Your task to perform on an android device: move a message to another label in the gmail app Image 0: 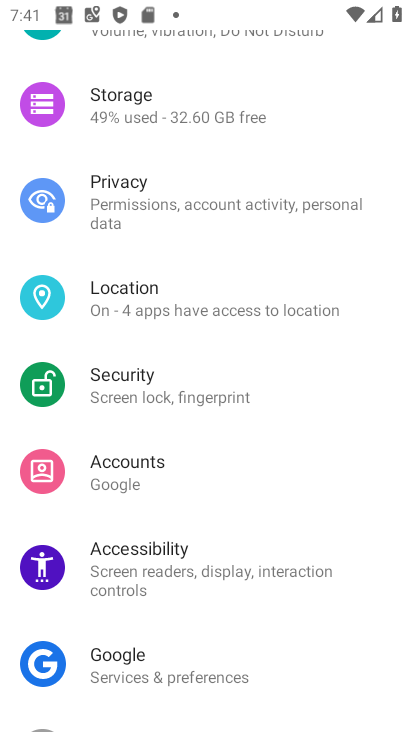
Step 0: press home button
Your task to perform on an android device: move a message to another label in the gmail app Image 1: 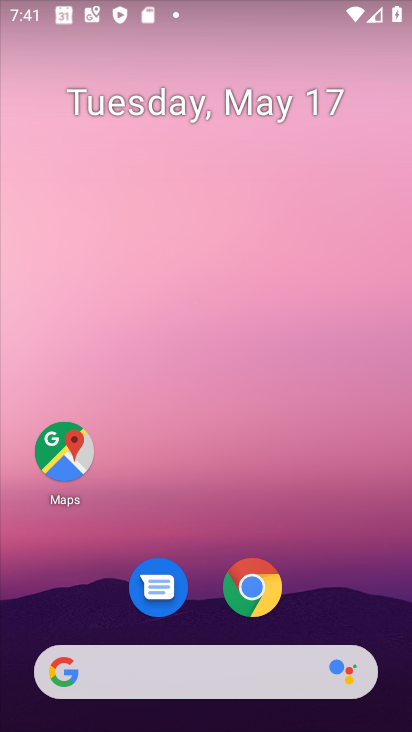
Step 1: drag from (203, 644) to (188, 337)
Your task to perform on an android device: move a message to another label in the gmail app Image 2: 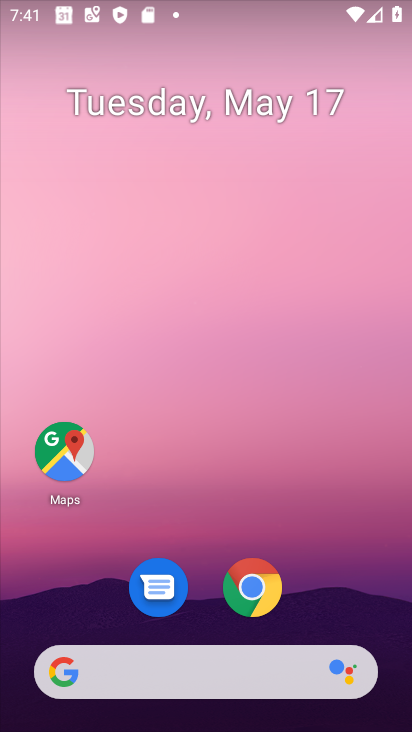
Step 2: drag from (231, 546) to (222, 230)
Your task to perform on an android device: move a message to another label in the gmail app Image 3: 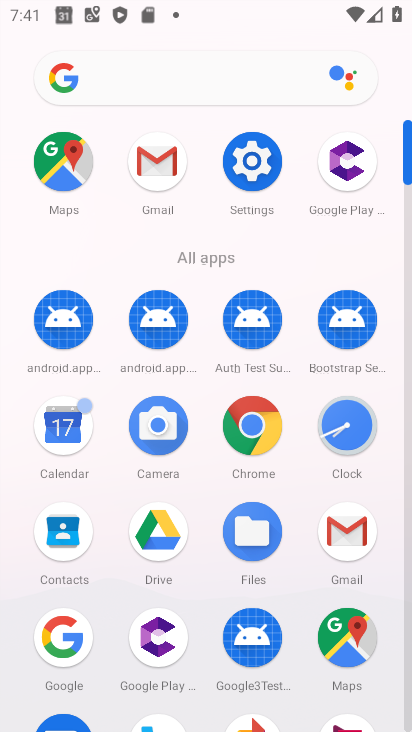
Step 3: click (154, 170)
Your task to perform on an android device: move a message to another label in the gmail app Image 4: 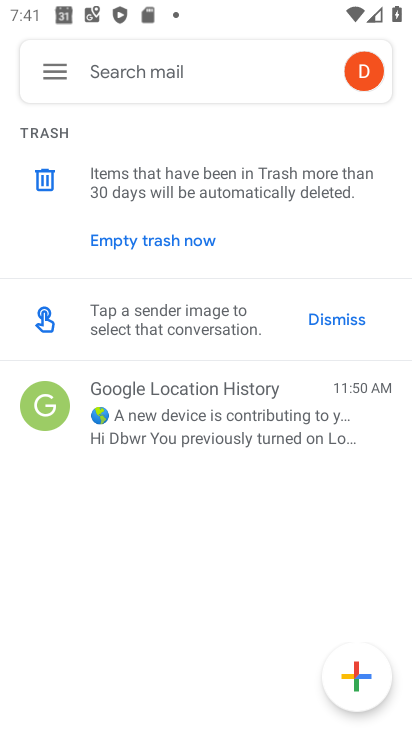
Step 4: click (58, 62)
Your task to perform on an android device: move a message to another label in the gmail app Image 5: 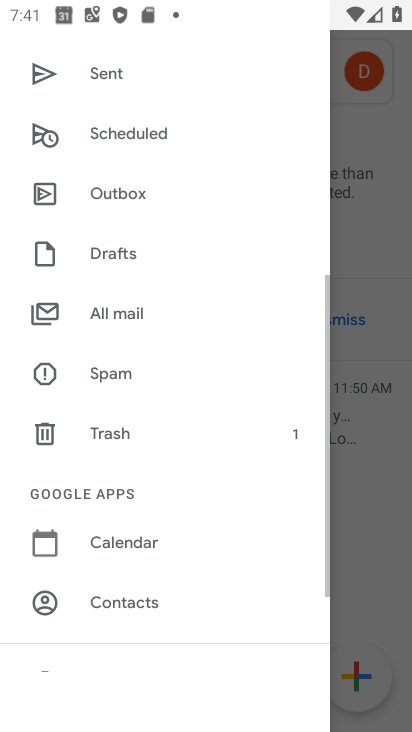
Step 5: drag from (128, 169) to (100, 570)
Your task to perform on an android device: move a message to another label in the gmail app Image 6: 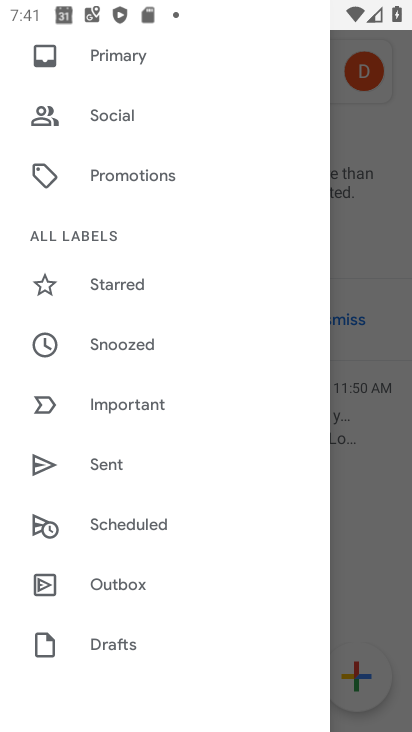
Step 6: drag from (124, 230) to (124, 505)
Your task to perform on an android device: move a message to another label in the gmail app Image 7: 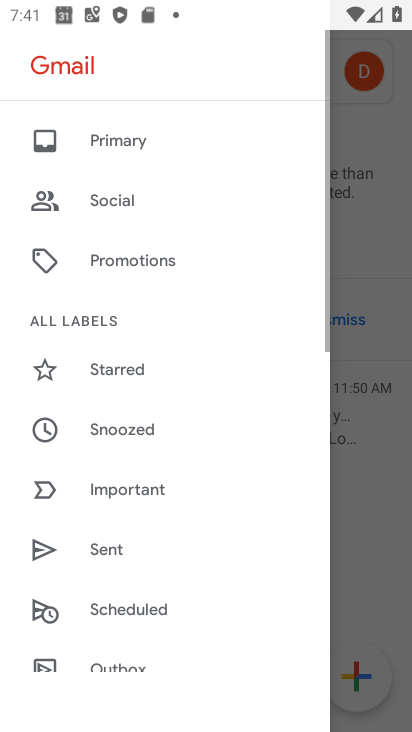
Step 7: click (104, 130)
Your task to perform on an android device: move a message to another label in the gmail app Image 8: 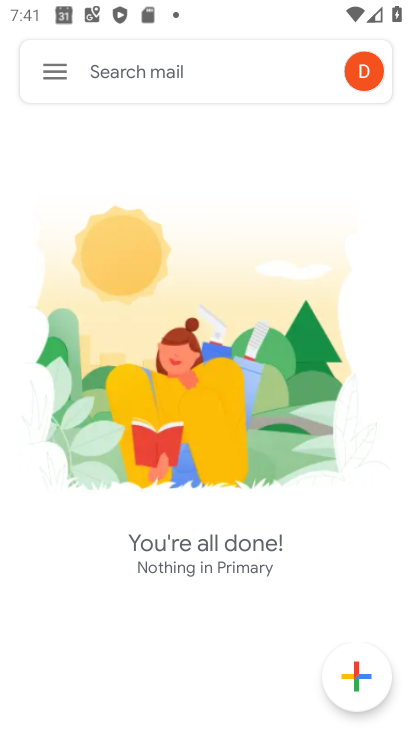
Step 8: task complete